Your task to perform on an android device: What's on my calendar today? Image 0: 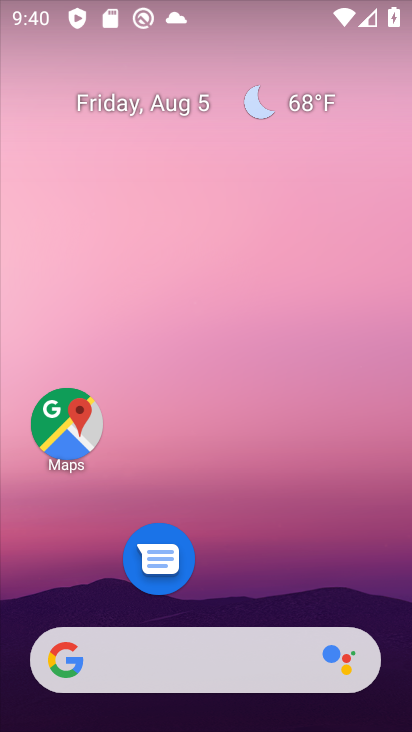
Step 0: drag from (192, 682) to (288, 104)
Your task to perform on an android device: What's on my calendar today? Image 1: 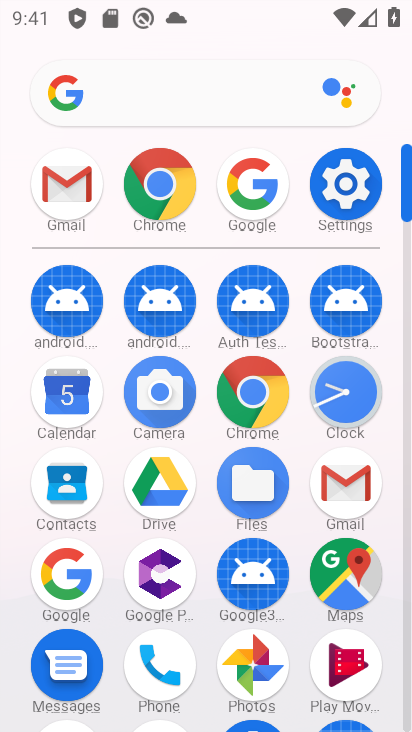
Step 1: click (61, 415)
Your task to perform on an android device: What's on my calendar today? Image 2: 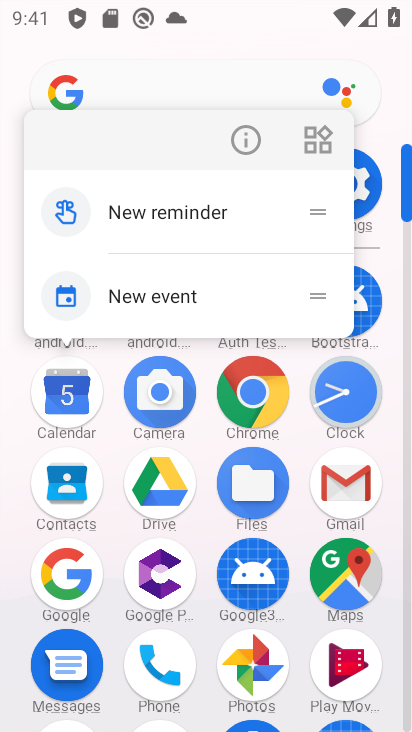
Step 2: click (61, 415)
Your task to perform on an android device: What's on my calendar today? Image 3: 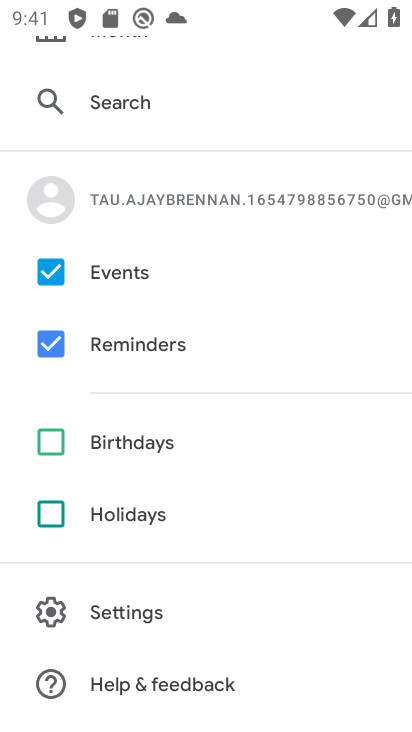
Step 3: task complete